Your task to perform on an android device: Open Google Image 0: 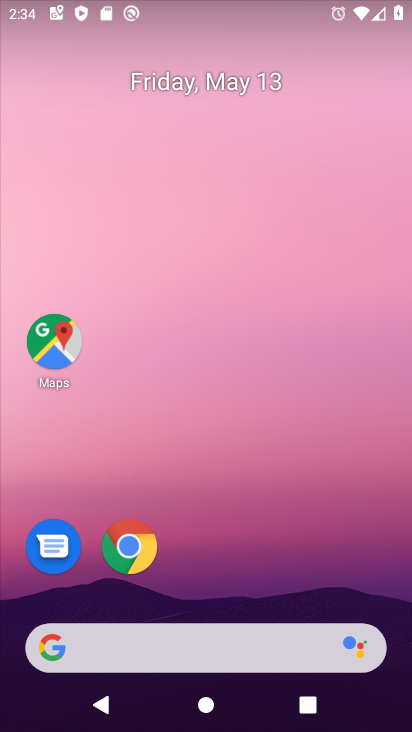
Step 0: drag from (253, 574) to (336, 128)
Your task to perform on an android device: Open Google Image 1: 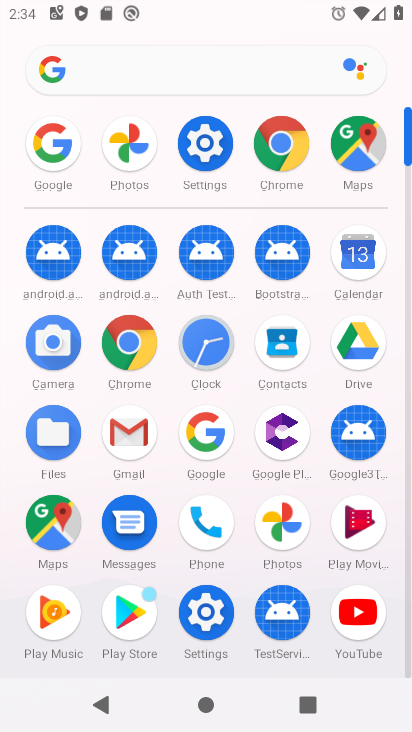
Step 1: click (206, 442)
Your task to perform on an android device: Open Google Image 2: 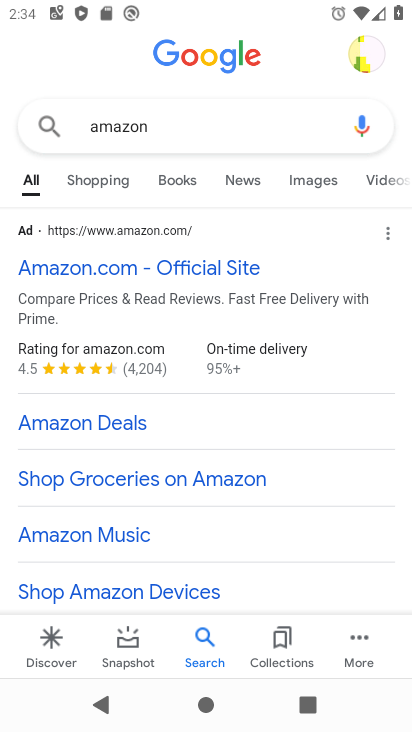
Step 2: task complete